Your task to perform on an android device: Clear the shopping cart on target. Search for "logitech g pro" on target, select the first entry, add it to the cart, then select checkout. Image 0: 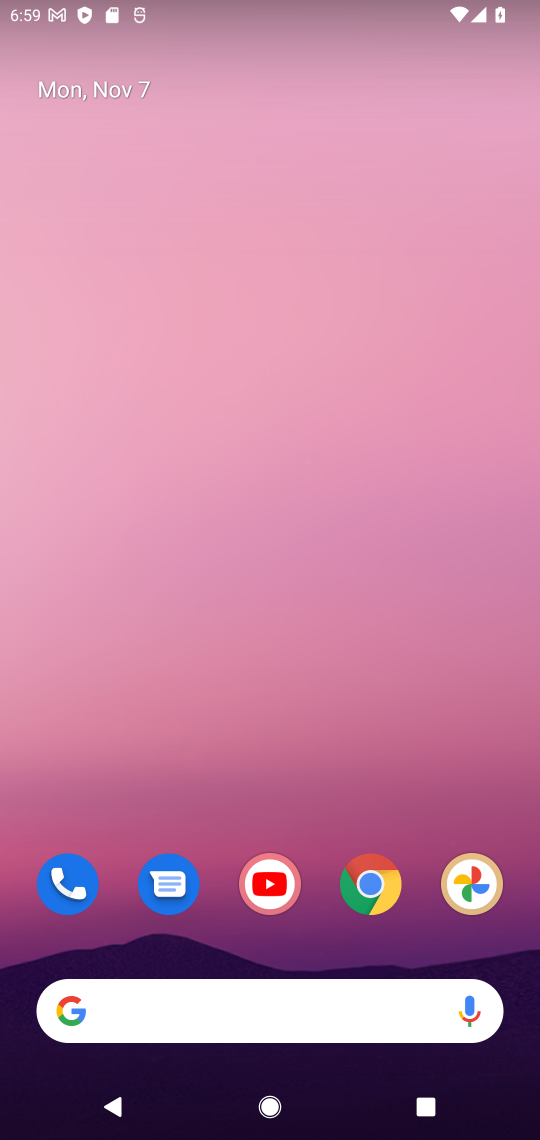
Step 0: click (381, 883)
Your task to perform on an android device: Clear the shopping cart on target. Search for "logitech g pro" on target, select the first entry, add it to the cart, then select checkout. Image 1: 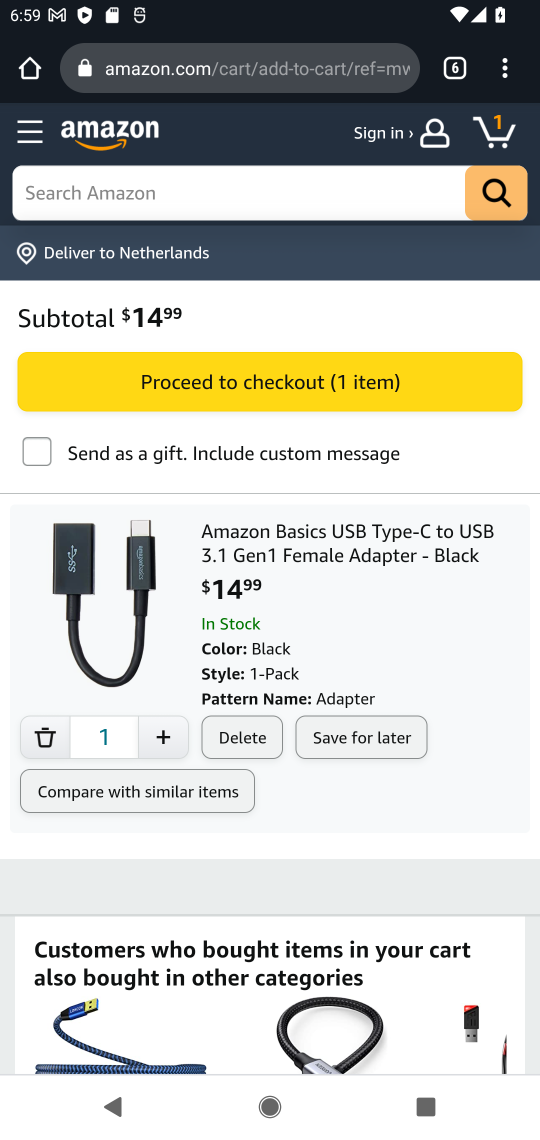
Step 1: click (459, 71)
Your task to perform on an android device: Clear the shopping cart on target. Search for "logitech g pro" on target, select the first entry, add it to the cart, then select checkout. Image 2: 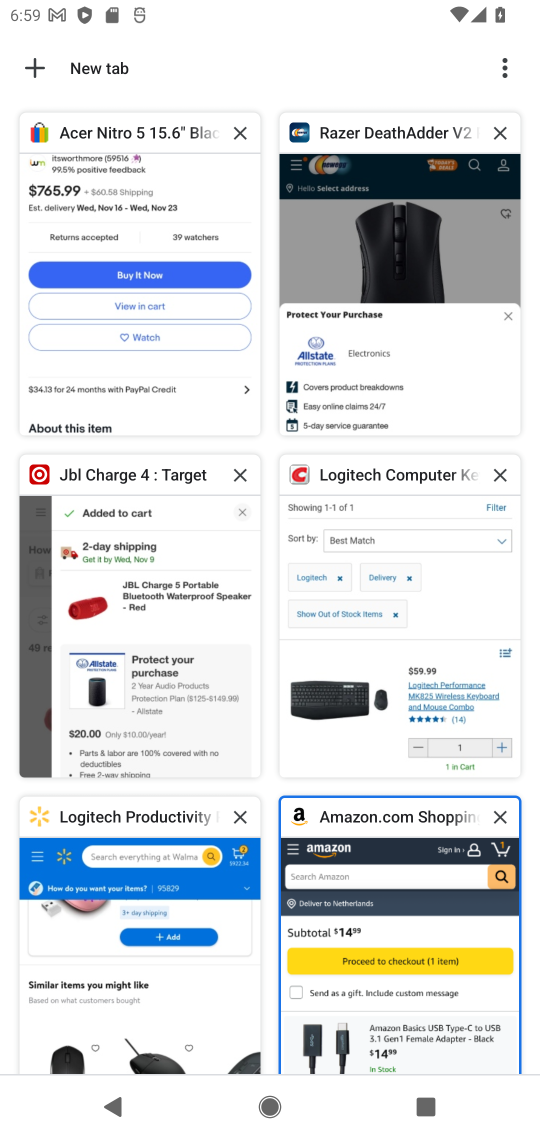
Step 2: click (174, 571)
Your task to perform on an android device: Clear the shopping cart on target. Search for "logitech g pro" on target, select the first entry, add it to the cart, then select checkout. Image 3: 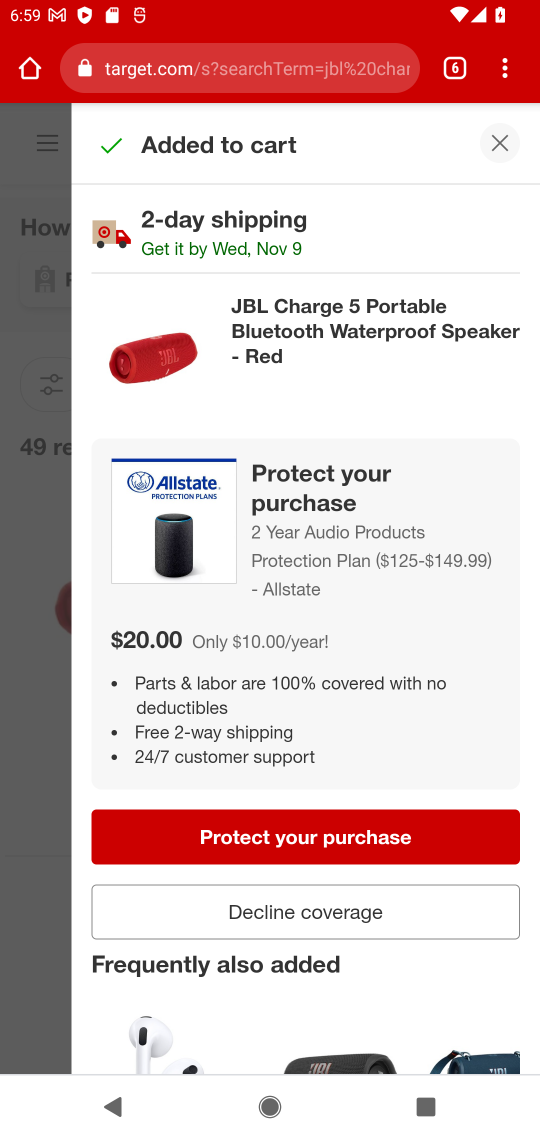
Step 3: click (360, 906)
Your task to perform on an android device: Clear the shopping cart on target. Search for "logitech g pro" on target, select the first entry, add it to the cart, then select checkout. Image 4: 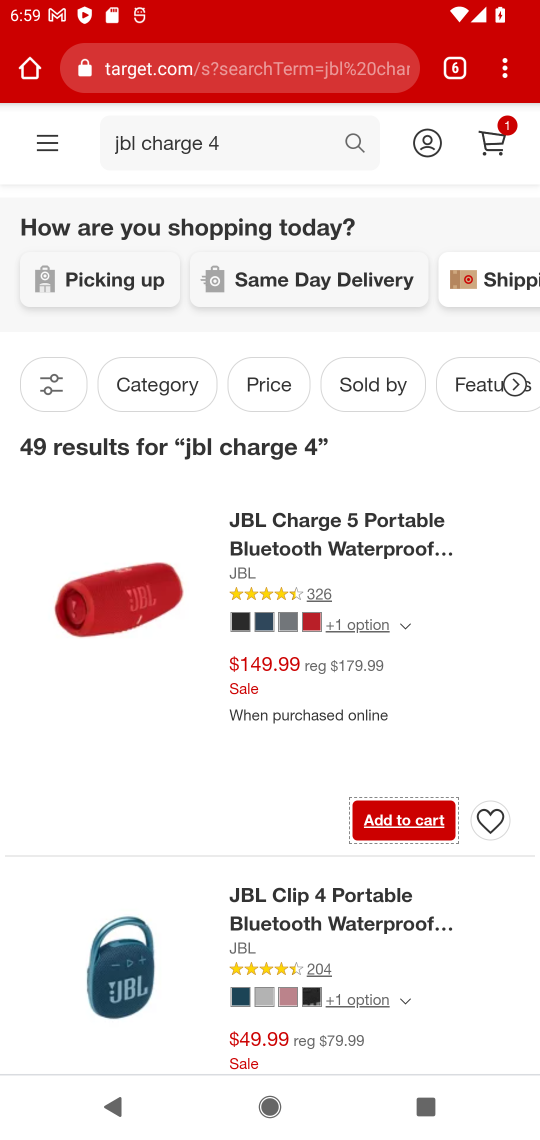
Step 4: click (500, 128)
Your task to perform on an android device: Clear the shopping cart on target. Search for "logitech g pro" on target, select the first entry, add it to the cart, then select checkout. Image 5: 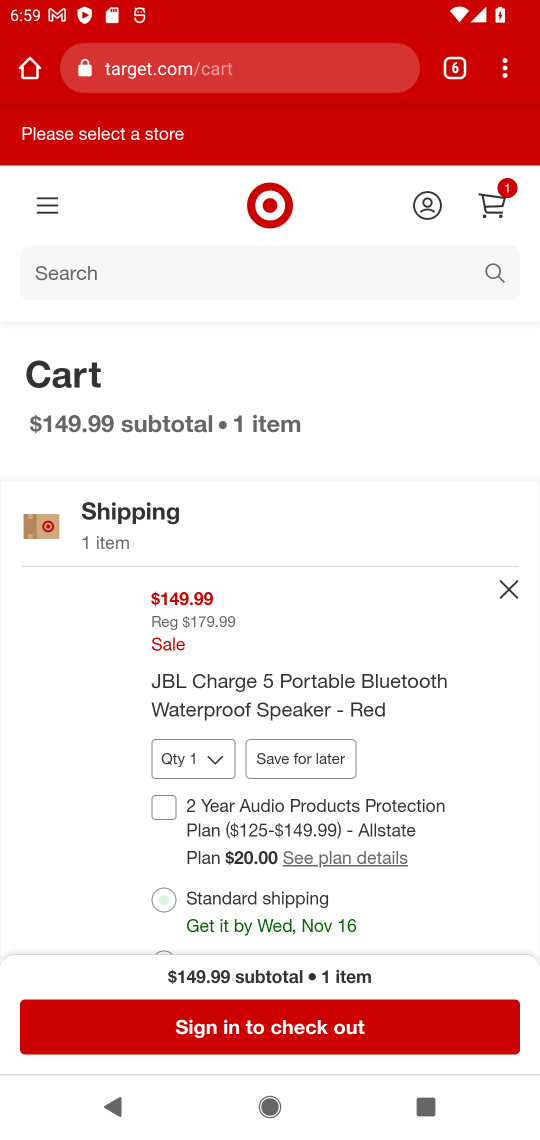
Step 5: click (511, 586)
Your task to perform on an android device: Clear the shopping cart on target. Search for "logitech g pro" on target, select the first entry, add it to the cart, then select checkout. Image 6: 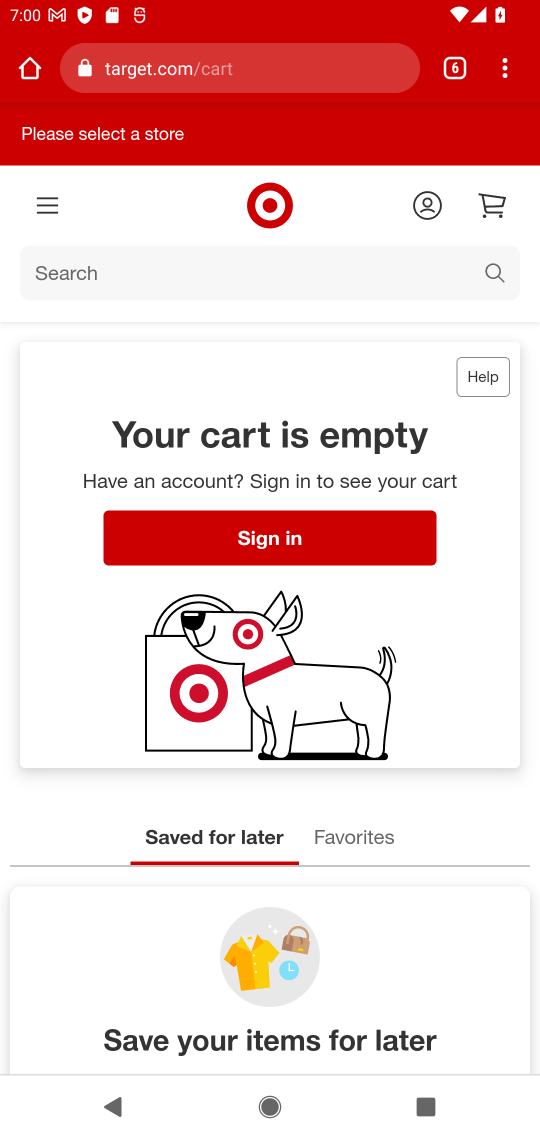
Step 6: click (59, 274)
Your task to perform on an android device: Clear the shopping cart on target. Search for "logitech g pro" on target, select the first entry, add it to the cart, then select checkout. Image 7: 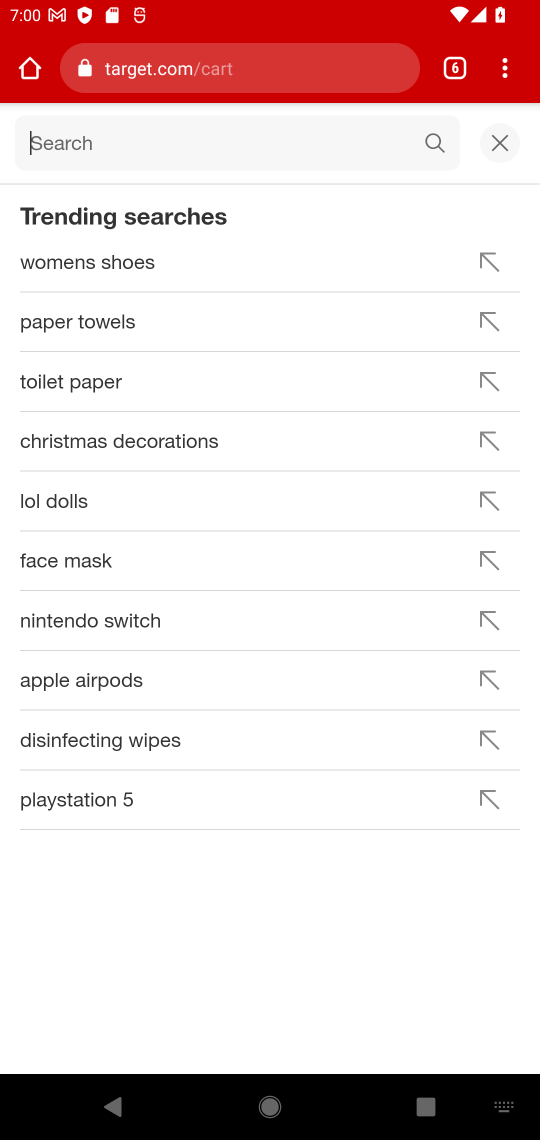
Step 7: type "logitech g pro"
Your task to perform on an android device: Clear the shopping cart on target. Search for "logitech g pro" on target, select the first entry, add it to the cart, then select checkout. Image 8: 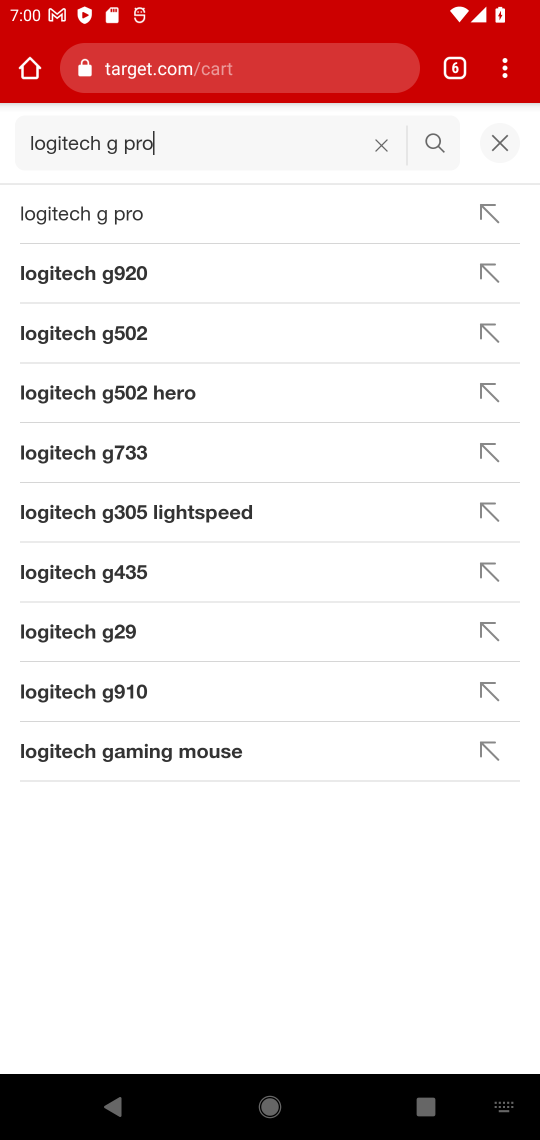
Step 8: click (126, 212)
Your task to perform on an android device: Clear the shopping cart on target. Search for "logitech g pro" on target, select the first entry, add it to the cart, then select checkout. Image 9: 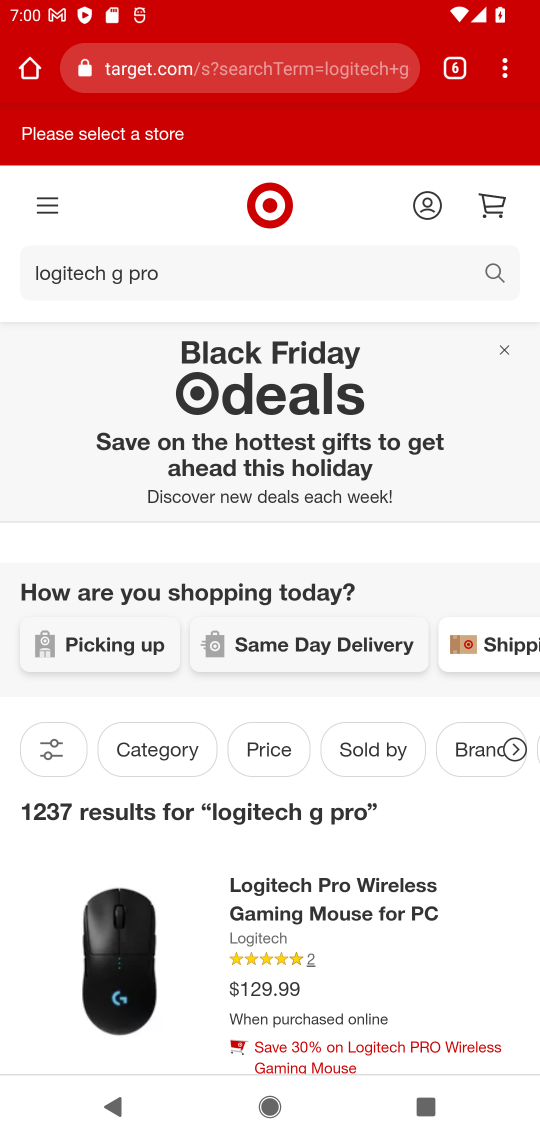
Step 9: drag from (367, 989) to (449, 561)
Your task to perform on an android device: Clear the shopping cart on target. Search for "logitech g pro" on target, select the first entry, add it to the cart, then select checkout. Image 10: 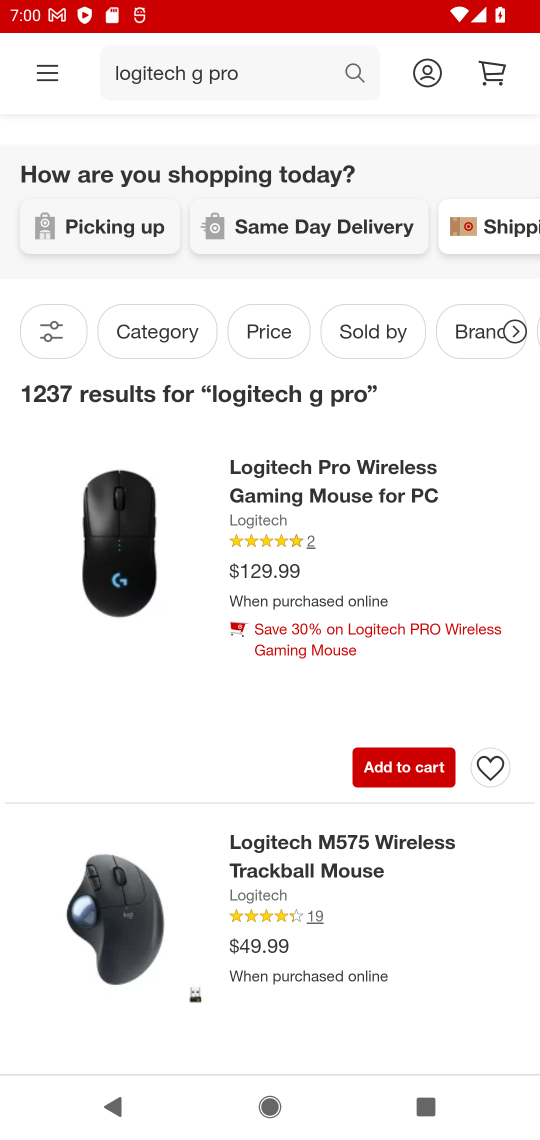
Step 10: click (420, 762)
Your task to perform on an android device: Clear the shopping cart on target. Search for "logitech g pro" on target, select the first entry, add it to the cart, then select checkout. Image 11: 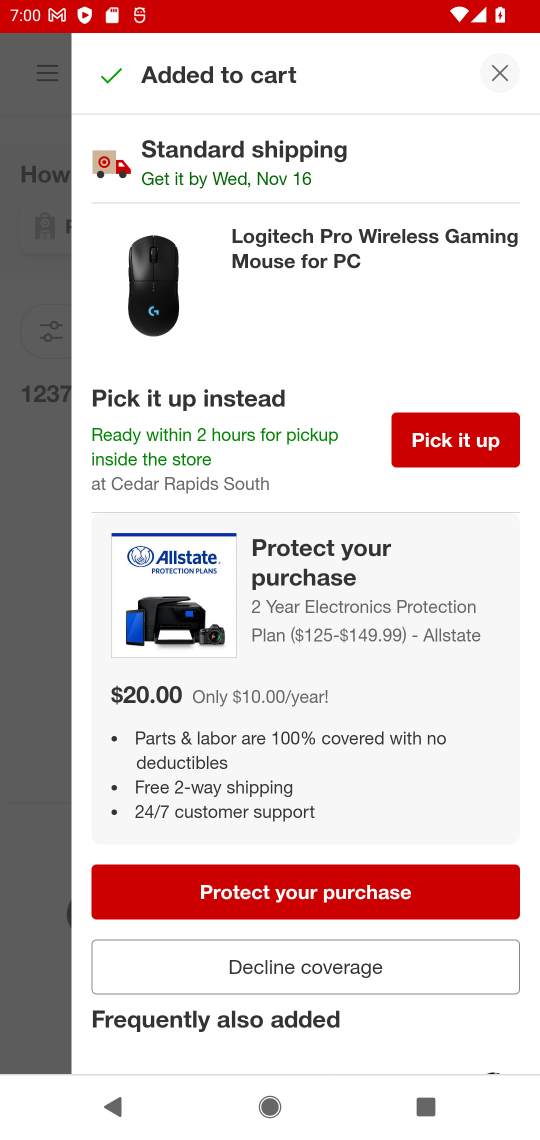
Step 11: click (355, 965)
Your task to perform on an android device: Clear the shopping cart on target. Search for "logitech g pro" on target, select the first entry, add it to the cart, then select checkout. Image 12: 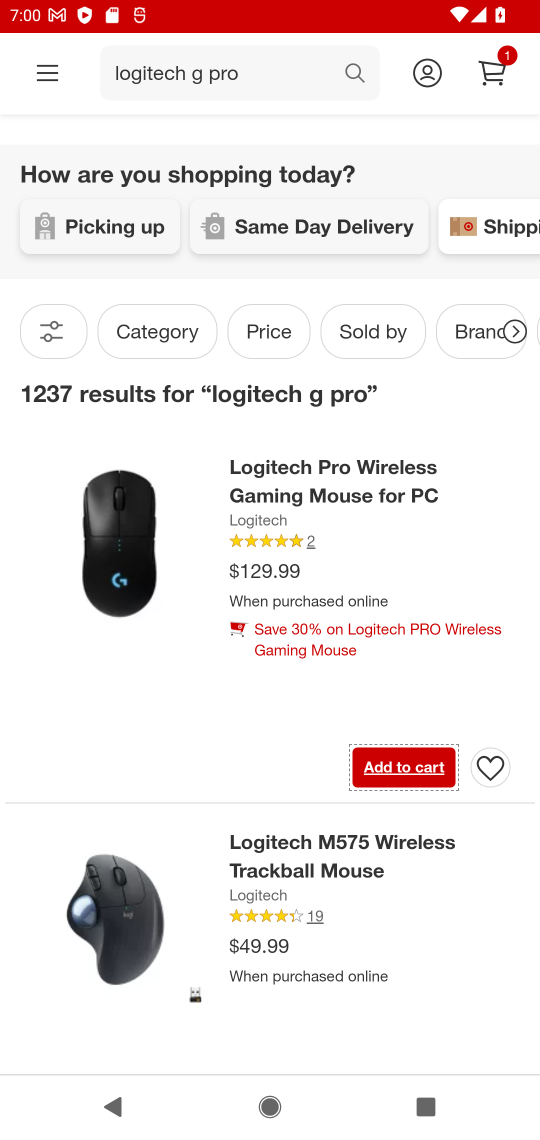
Step 12: task complete